Your task to perform on an android device: change the clock display to show seconds Image 0: 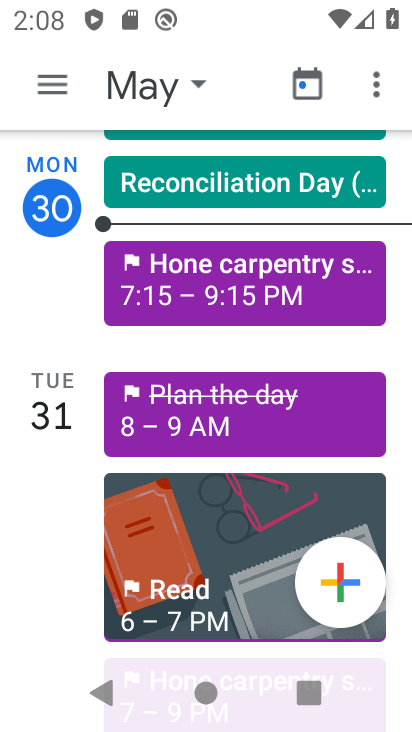
Step 0: press home button
Your task to perform on an android device: change the clock display to show seconds Image 1: 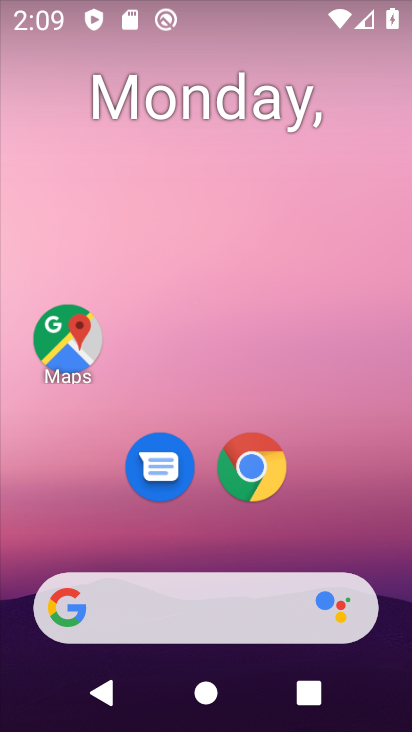
Step 1: drag from (366, 536) to (398, 4)
Your task to perform on an android device: change the clock display to show seconds Image 2: 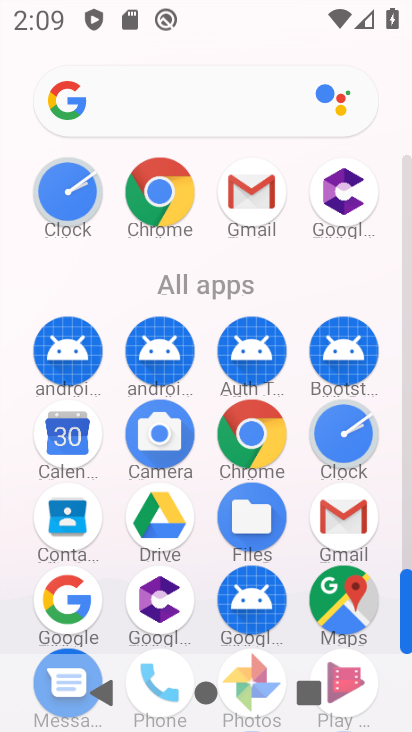
Step 2: click (354, 436)
Your task to perform on an android device: change the clock display to show seconds Image 3: 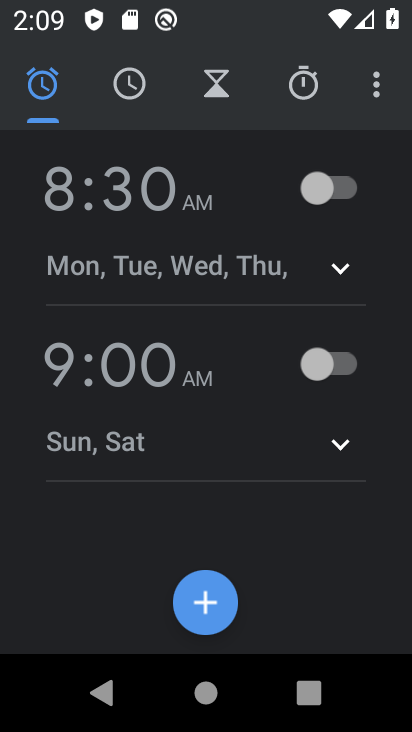
Step 3: click (381, 95)
Your task to perform on an android device: change the clock display to show seconds Image 4: 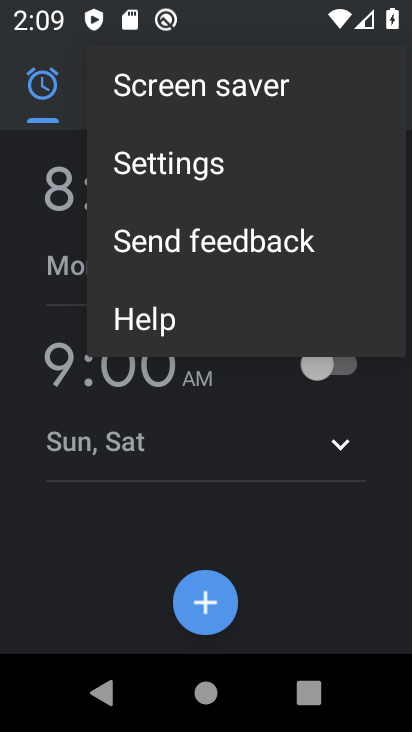
Step 4: click (321, 155)
Your task to perform on an android device: change the clock display to show seconds Image 5: 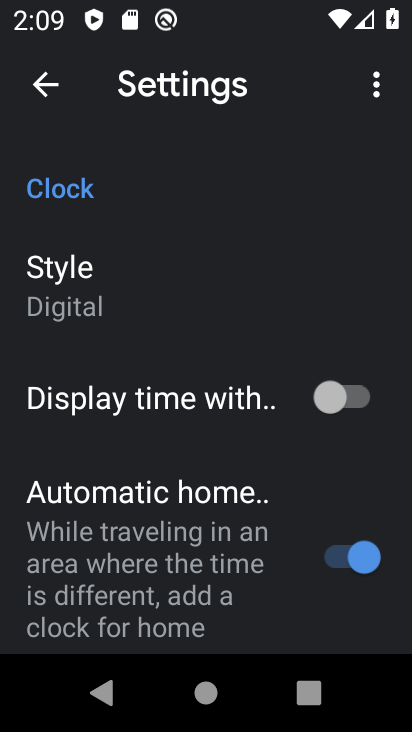
Step 5: click (353, 387)
Your task to perform on an android device: change the clock display to show seconds Image 6: 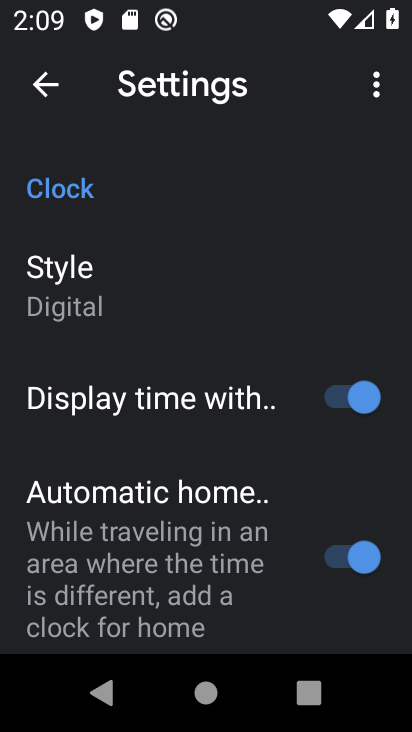
Step 6: task complete